Your task to perform on an android device: open a new tab in the chrome app Image 0: 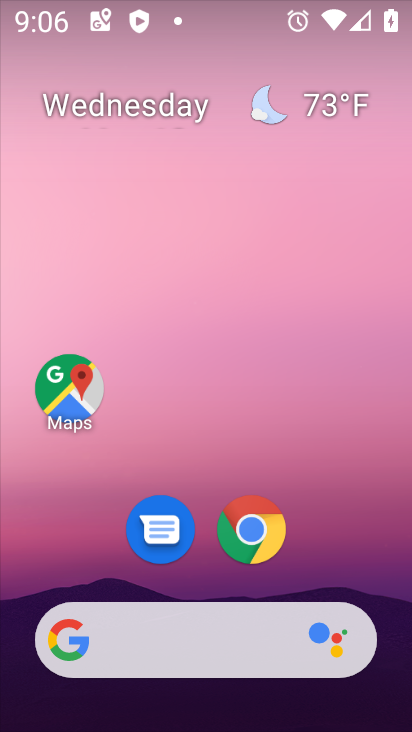
Step 0: drag from (377, 563) to (393, 262)
Your task to perform on an android device: open a new tab in the chrome app Image 1: 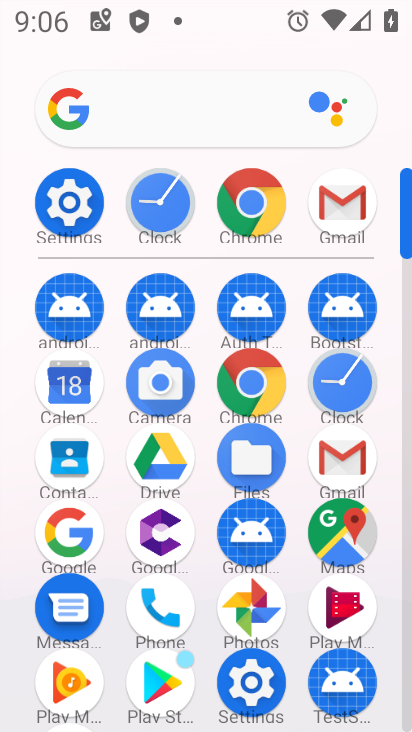
Step 1: click (261, 399)
Your task to perform on an android device: open a new tab in the chrome app Image 2: 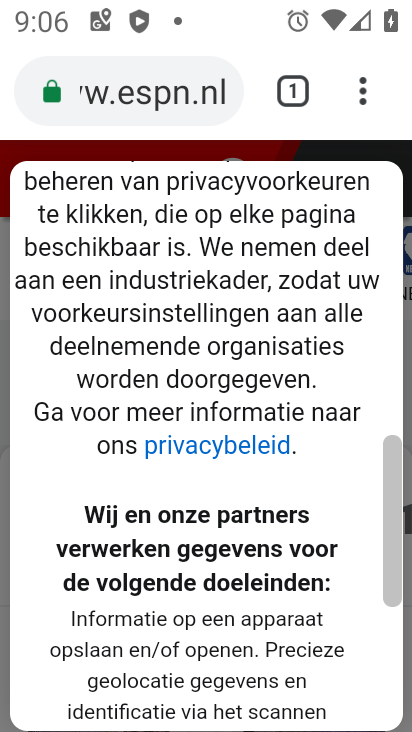
Step 2: click (362, 107)
Your task to perform on an android device: open a new tab in the chrome app Image 3: 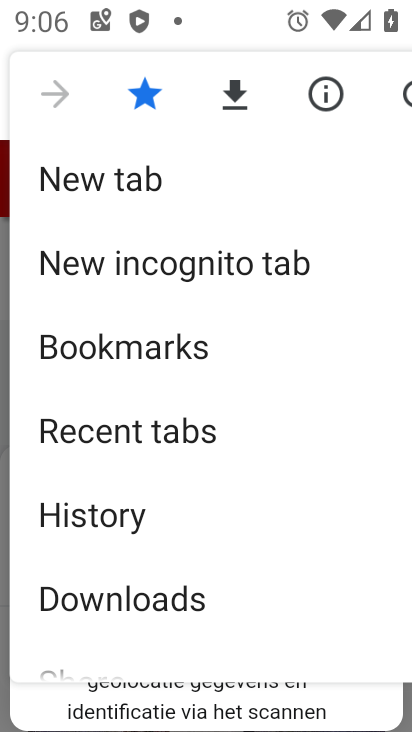
Step 3: click (138, 190)
Your task to perform on an android device: open a new tab in the chrome app Image 4: 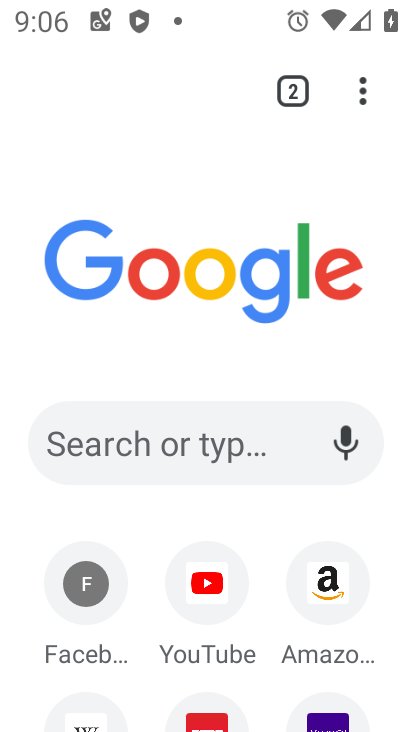
Step 4: task complete